Your task to perform on an android device: Open Google Chrome and click the shortcut for Amazon.com Image 0: 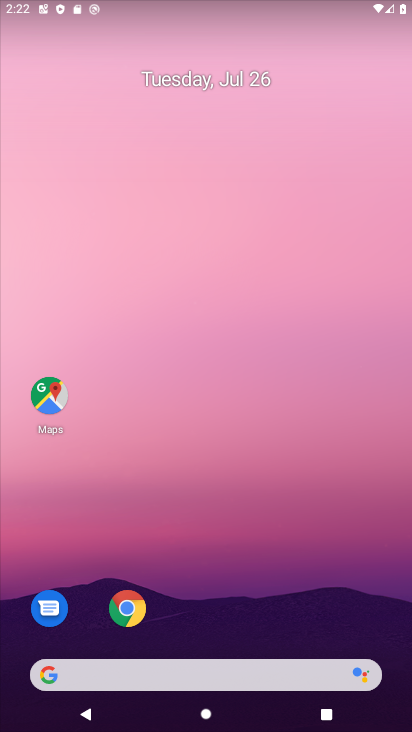
Step 0: drag from (298, 636) to (292, 27)
Your task to perform on an android device: Open Google Chrome and click the shortcut for Amazon.com Image 1: 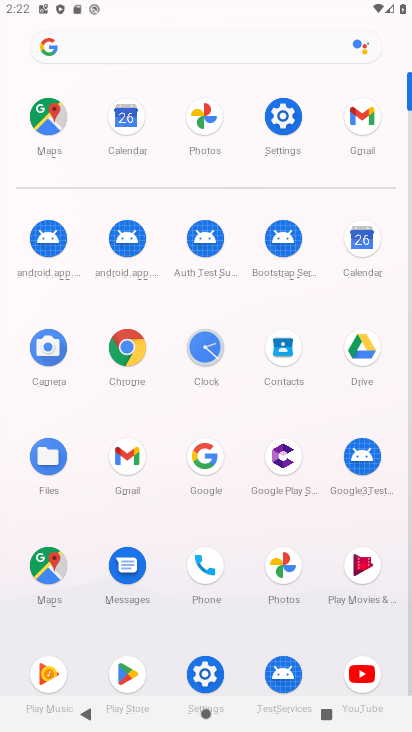
Step 1: click (222, 51)
Your task to perform on an android device: Open Google Chrome and click the shortcut for Amazon.com Image 2: 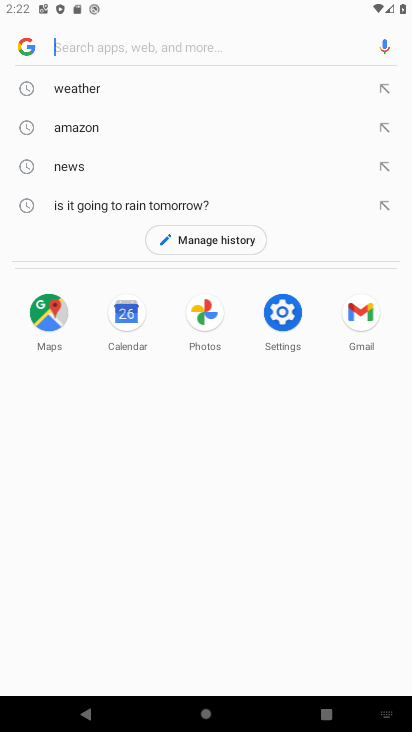
Step 2: click (88, 129)
Your task to perform on an android device: Open Google Chrome and click the shortcut for Amazon.com Image 3: 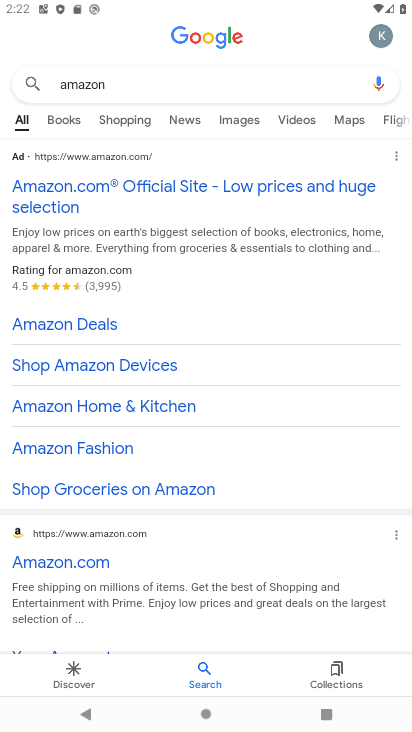
Step 3: click (99, 173)
Your task to perform on an android device: Open Google Chrome and click the shortcut for Amazon.com Image 4: 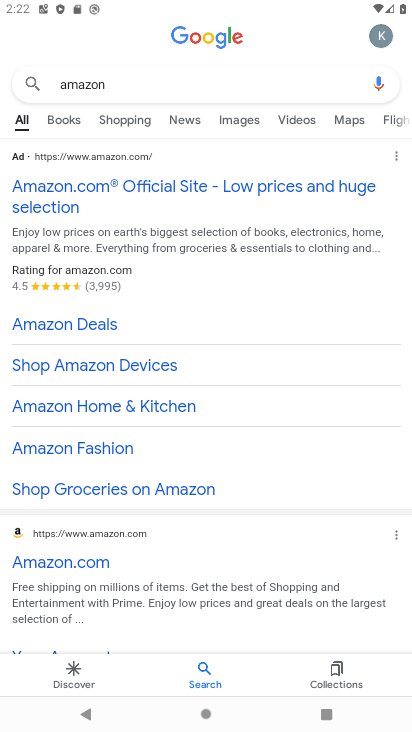
Step 4: task complete